Your task to perform on an android device: Add "dell xps" to the cart on costco Image 0: 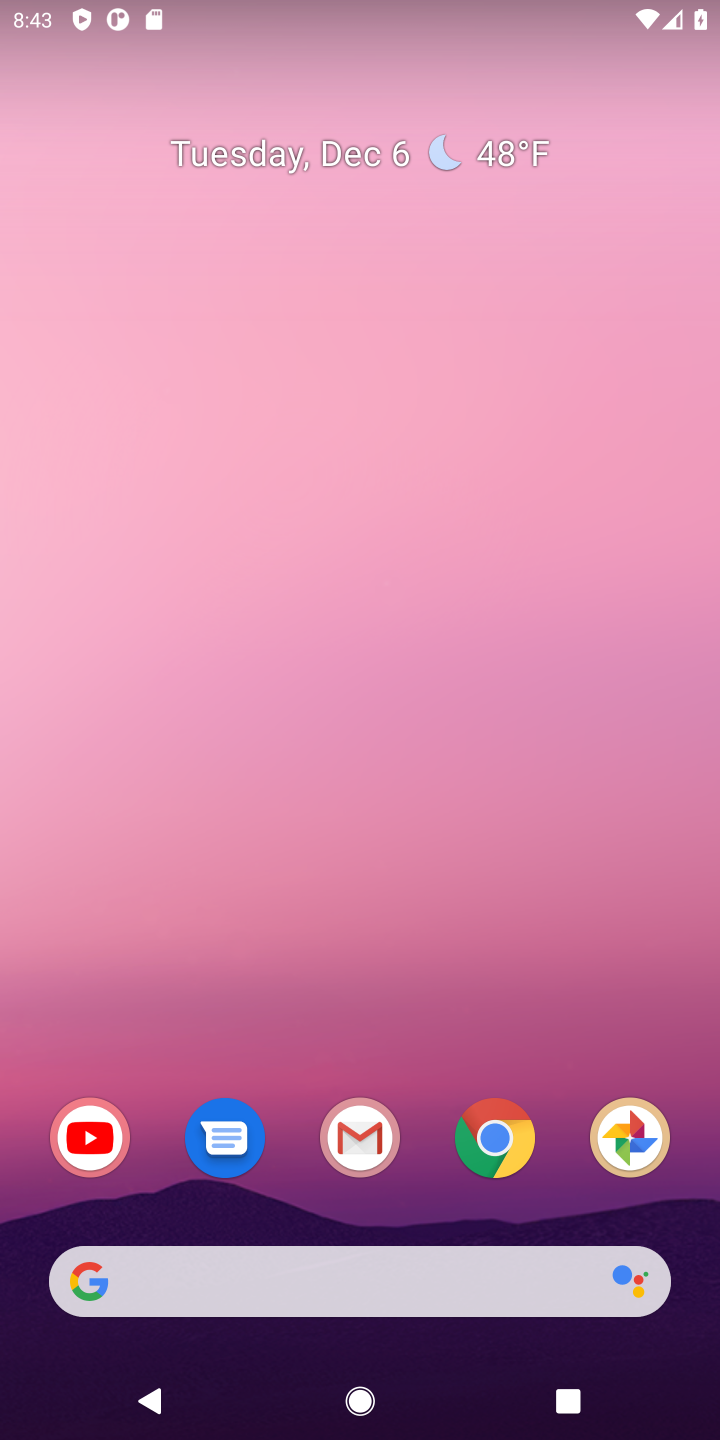
Step 0: click (496, 1151)
Your task to perform on an android device: Add "dell xps" to the cart on costco Image 1: 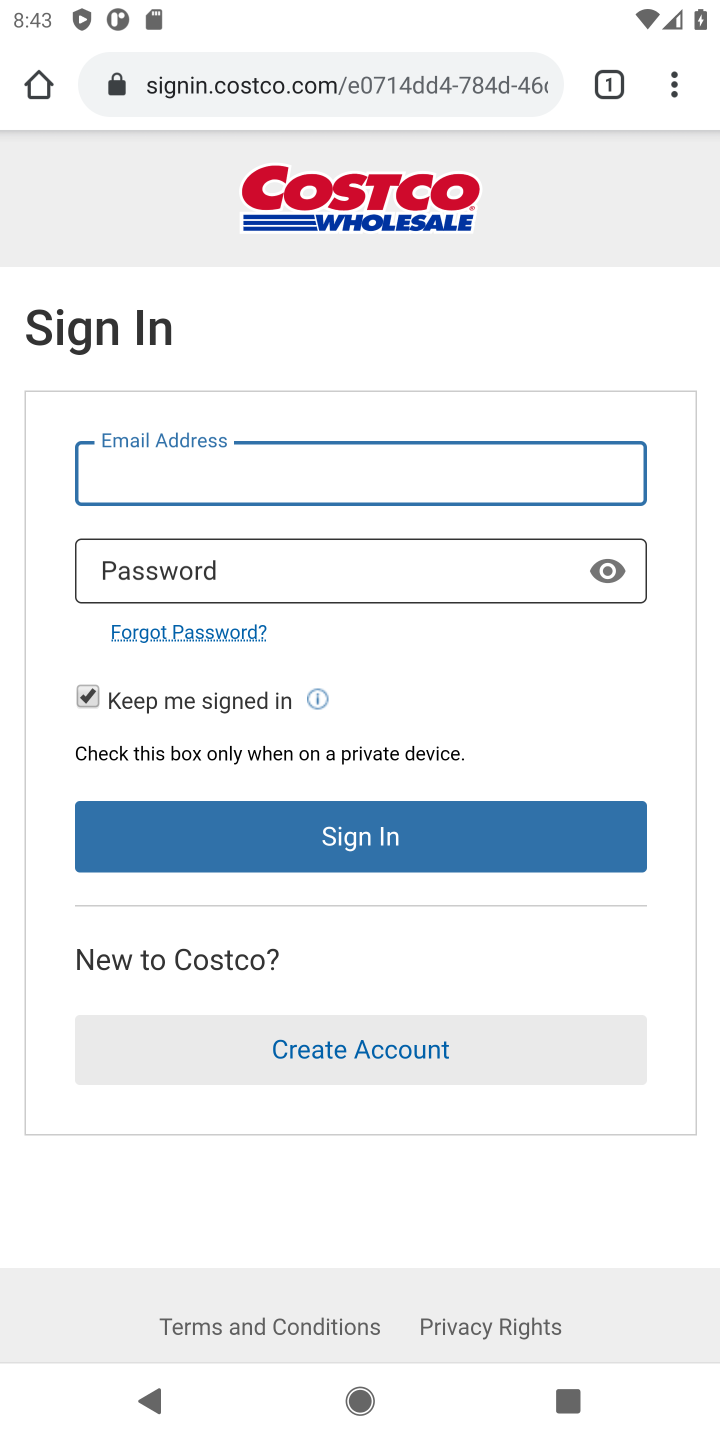
Step 1: press back button
Your task to perform on an android device: Add "dell xps" to the cart on costco Image 2: 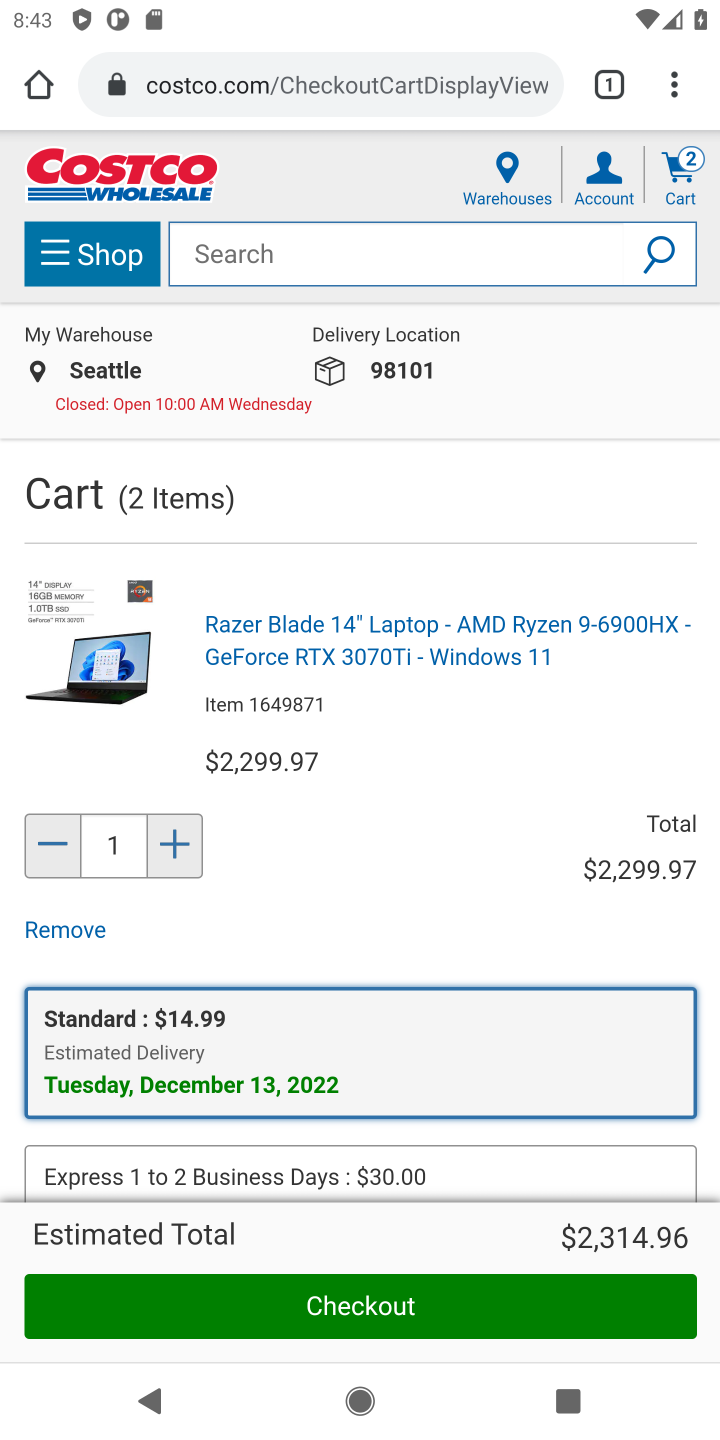
Step 2: click (274, 264)
Your task to perform on an android device: Add "dell xps" to the cart on costco Image 3: 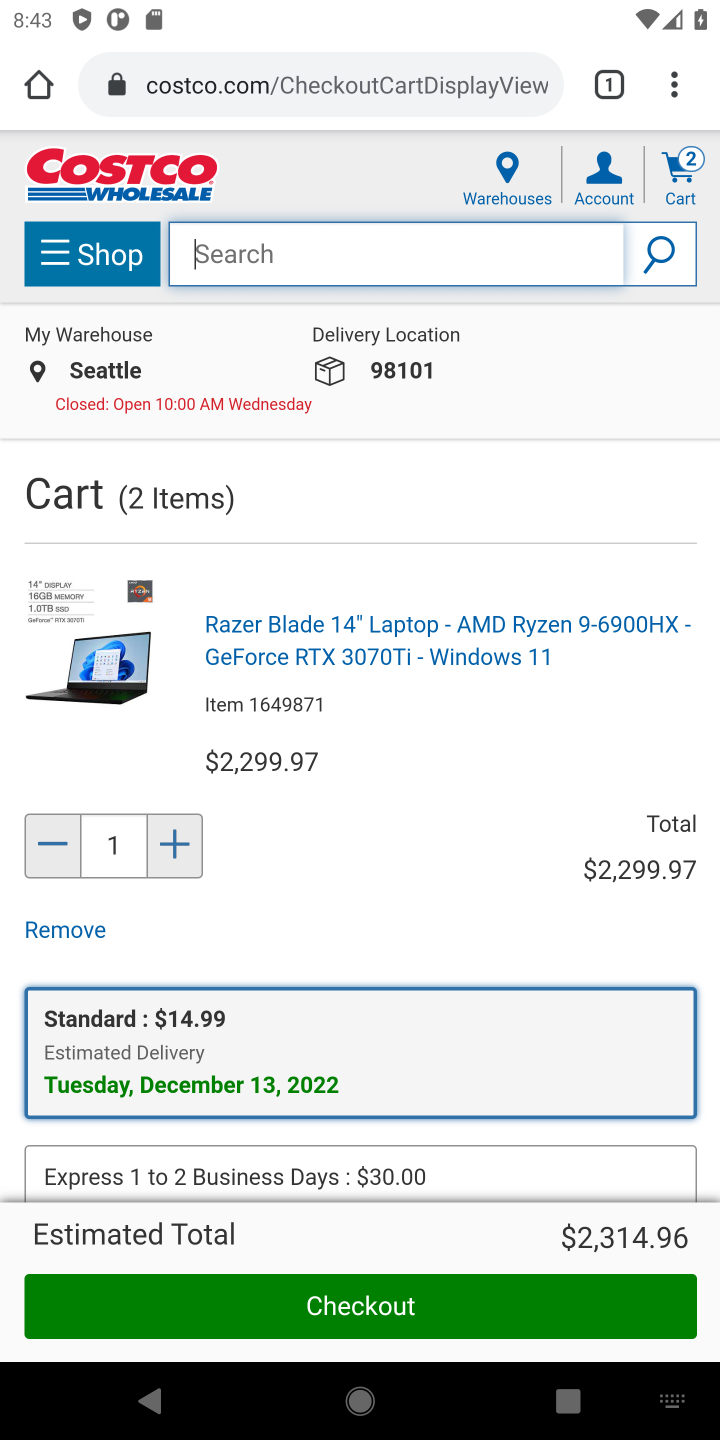
Step 3: type "dell xps"
Your task to perform on an android device: Add "dell xps" to the cart on costco Image 4: 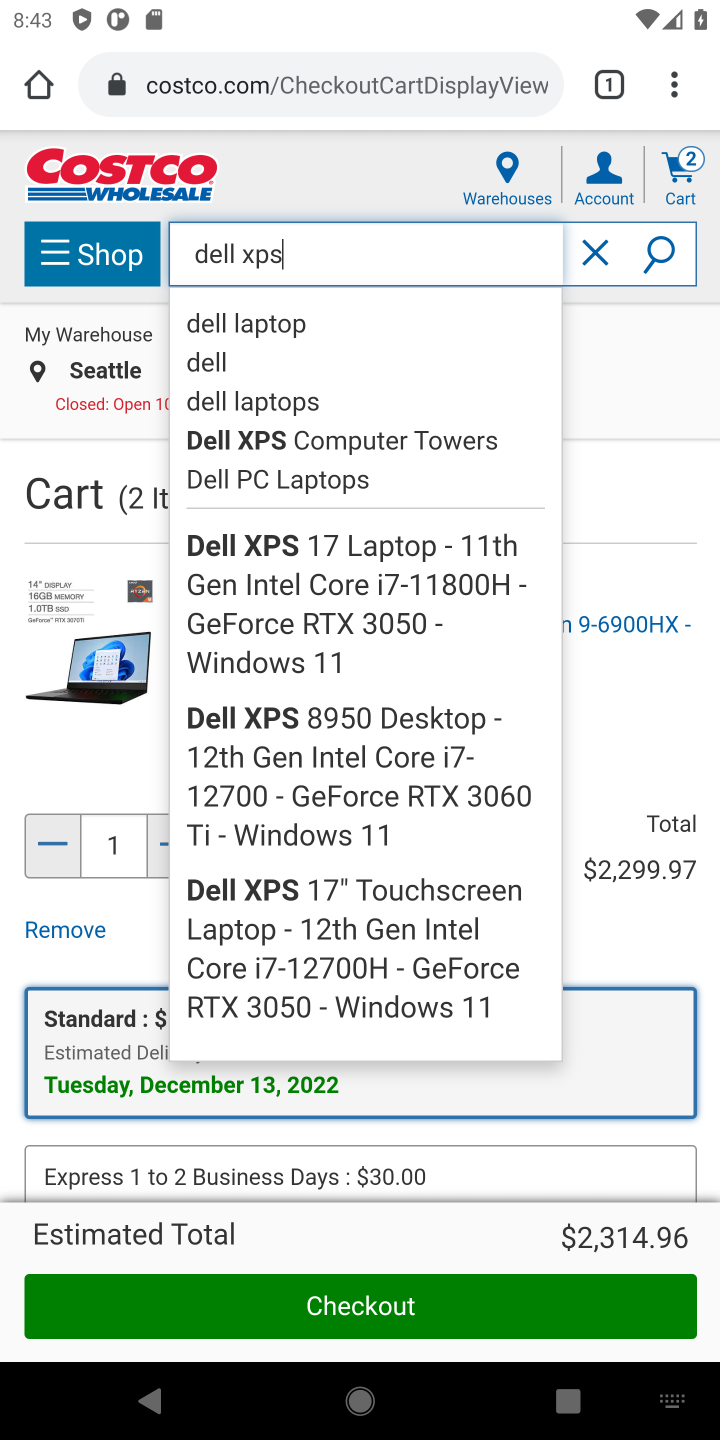
Step 4: click (652, 266)
Your task to perform on an android device: Add "dell xps" to the cart on costco Image 5: 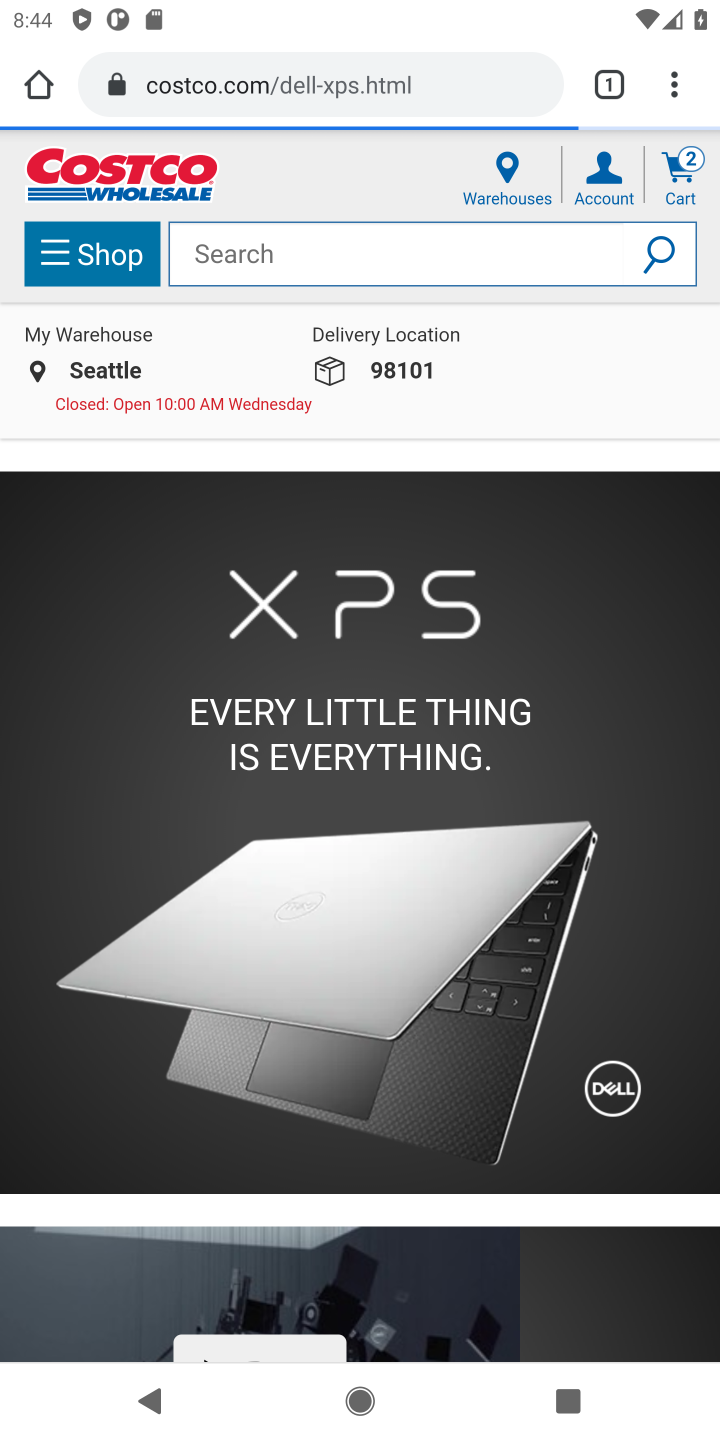
Step 5: task complete